Your task to perform on an android device: open chrome and create a bookmark for the current page Image 0: 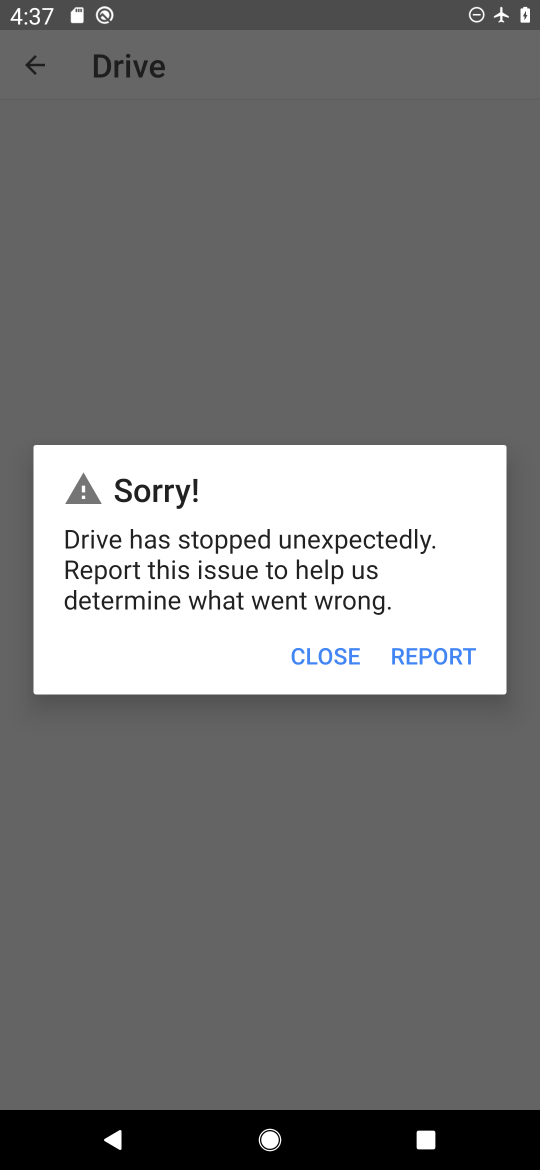
Step 0: press home button
Your task to perform on an android device: open chrome and create a bookmark for the current page Image 1: 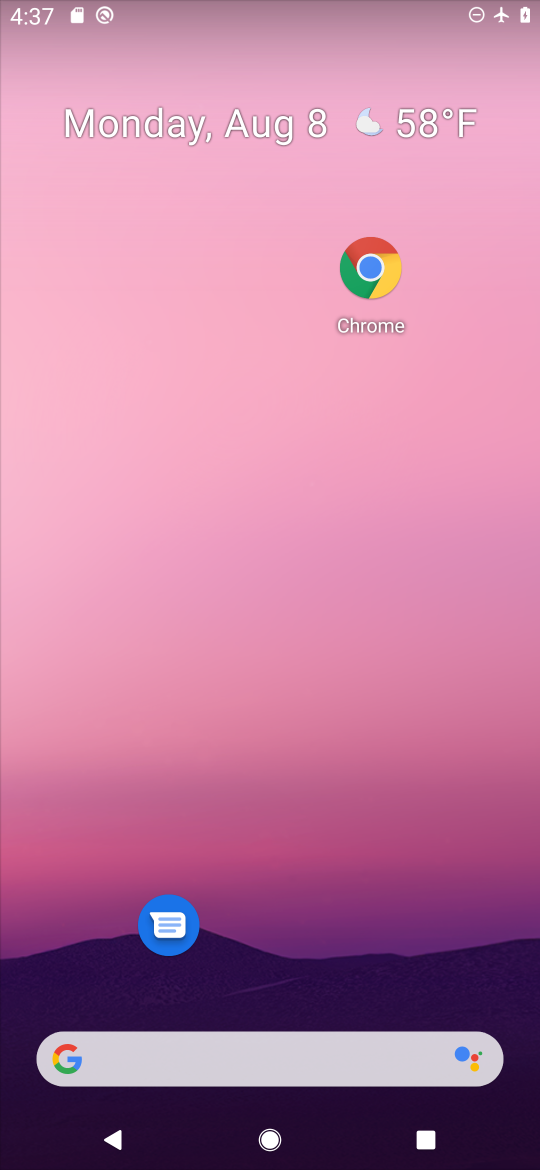
Step 1: drag from (354, 976) to (377, 235)
Your task to perform on an android device: open chrome and create a bookmark for the current page Image 2: 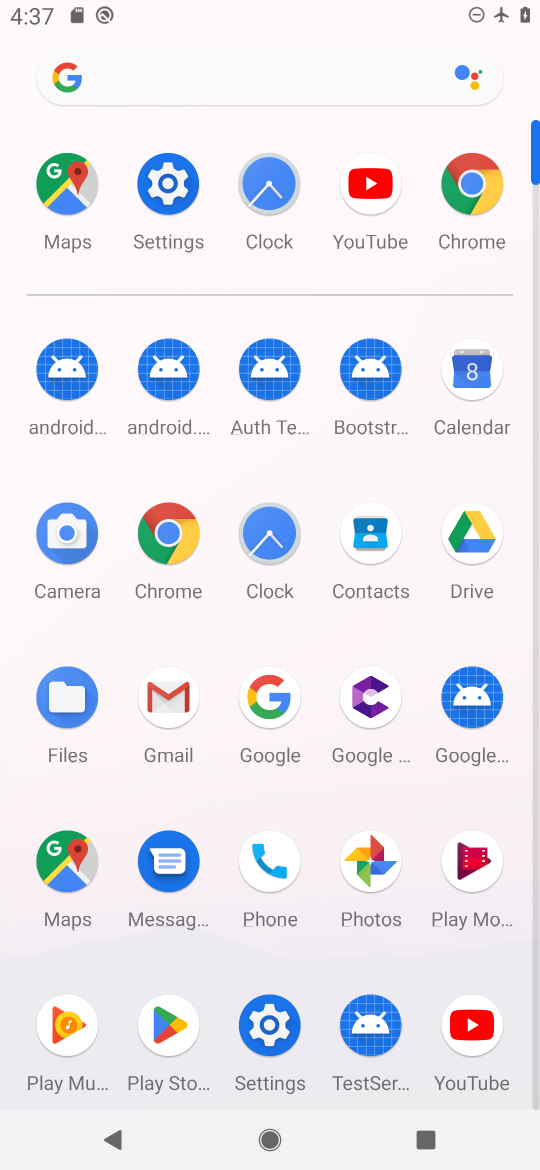
Step 2: click (476, 183)
Your task to perform on an android device: open chrome and create a bookmark for the current page Image 3: 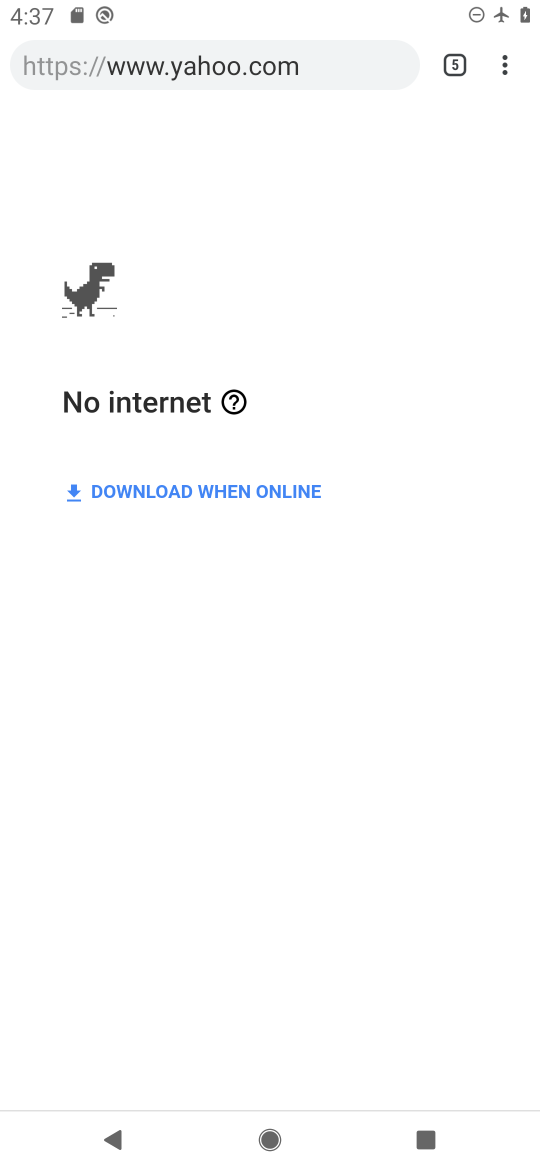
Step 3: task complete